Your task to perform on an android device: Check the news Image 0: 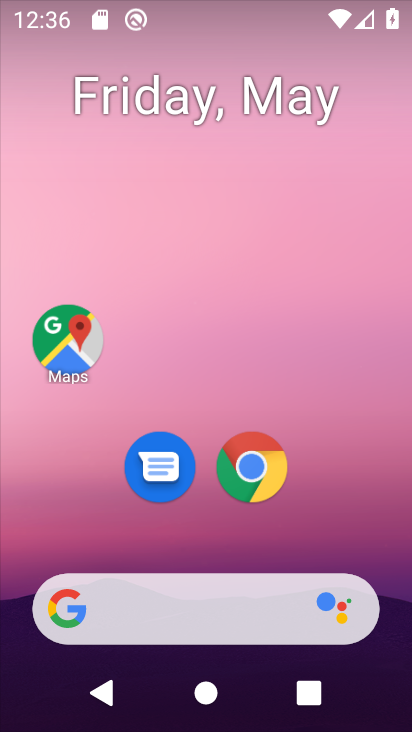
Step 0: drag from (349, 502) to (273, 24)
Your task to perform on an android device: Check the news Image 1: 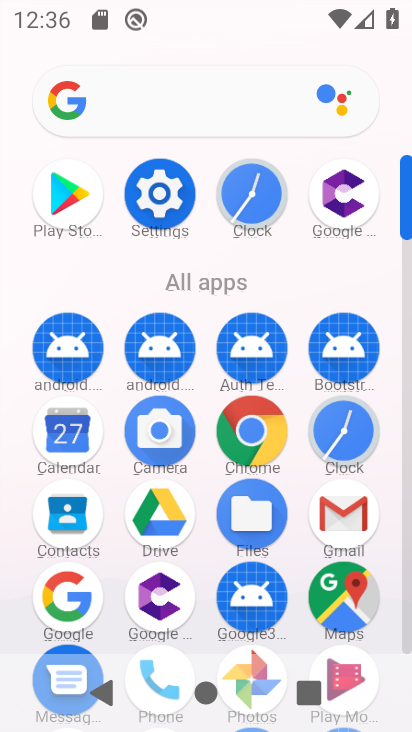
Step 1: click (260, 442)
Your task to perform on an android device: Check the news Image 2: 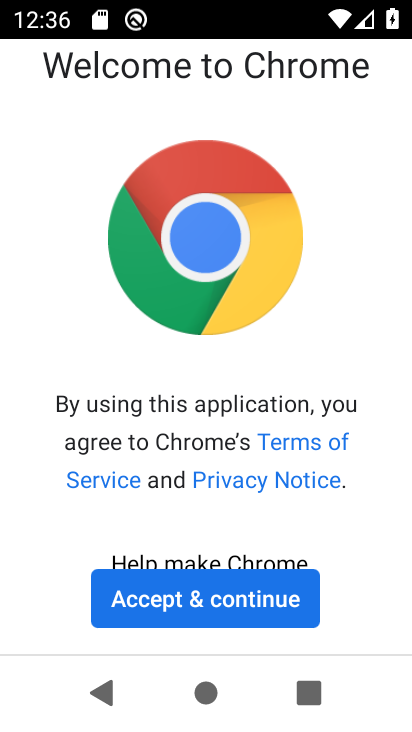
Step 2: click (261, 605)
Your task to perform on an android device: Check the news Image 3: 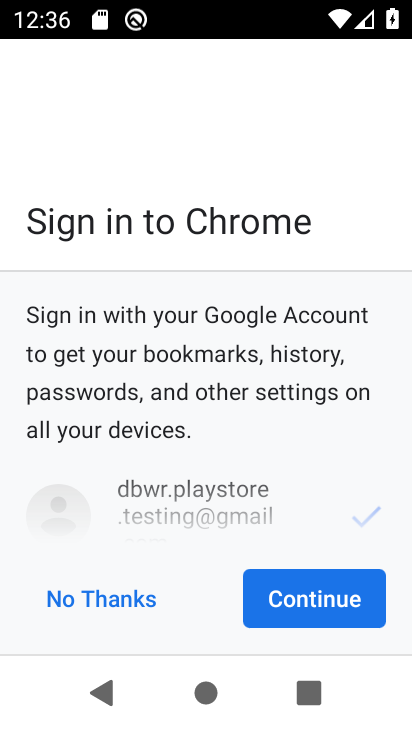
Step 3: click (94, 607)
Your task to perform on an android device: Check the news Image 4: 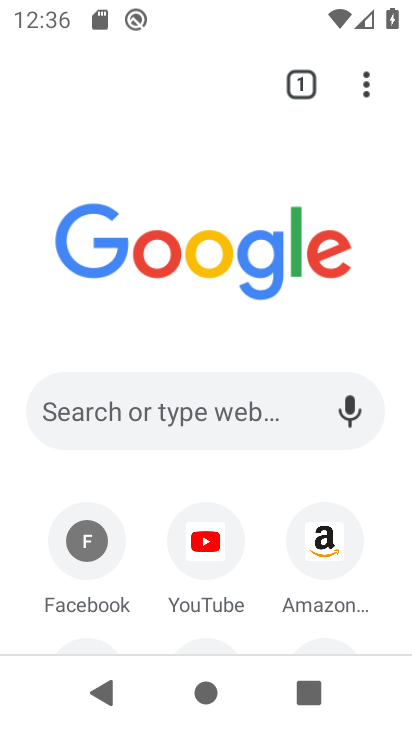
Step 4: task complete